Your task to perform on an android device: turn off wifi Image 0: 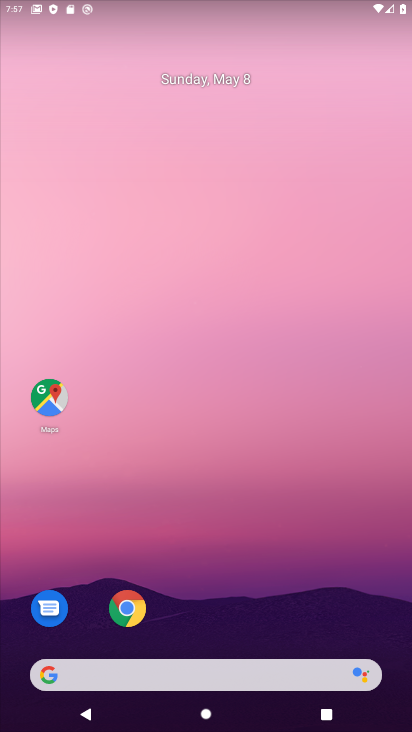
Step 0: drag from (228, 611) to (267, 169)
Your task to perform on an android device: turn off wifi Image 1: 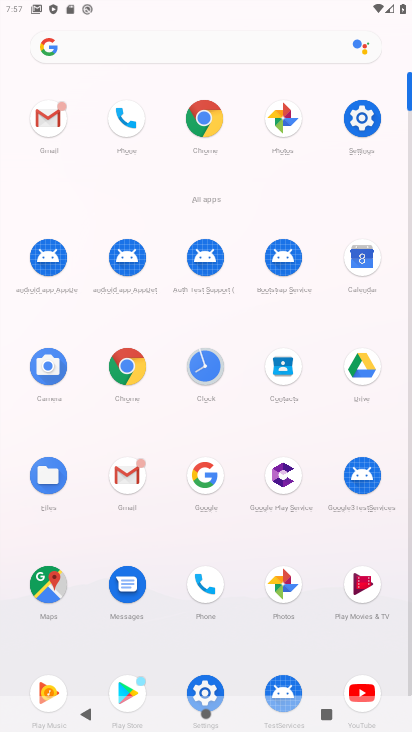
Step 1: click (369, 107)
Your task to perform on an android device: turn off wifi Image 2: 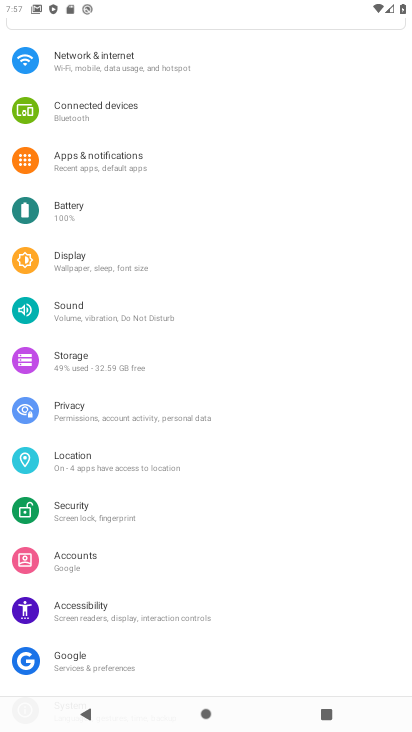
Step 2: click (111, 51)
Your task to perform on an android device: turn off wifi Image 3: 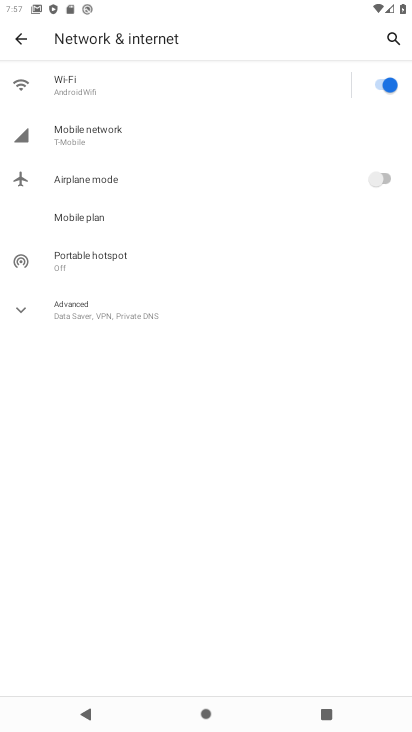
Step 3: click (382, 90)
Your task to perform on an android device: turn off wifi Image 4: 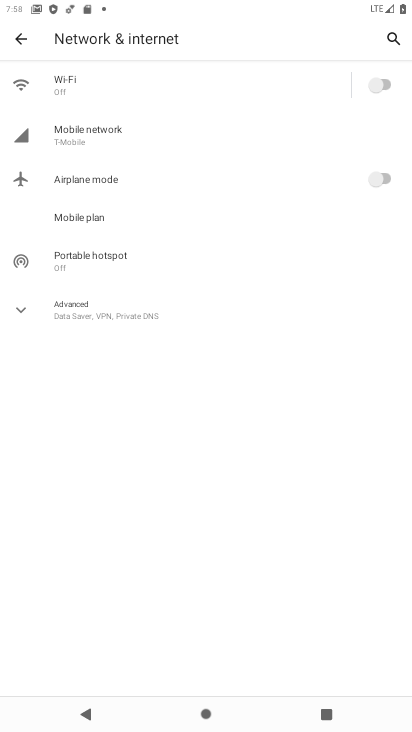
Step 4: task complete